Your task to perform on an android device: check data usage Image 0: 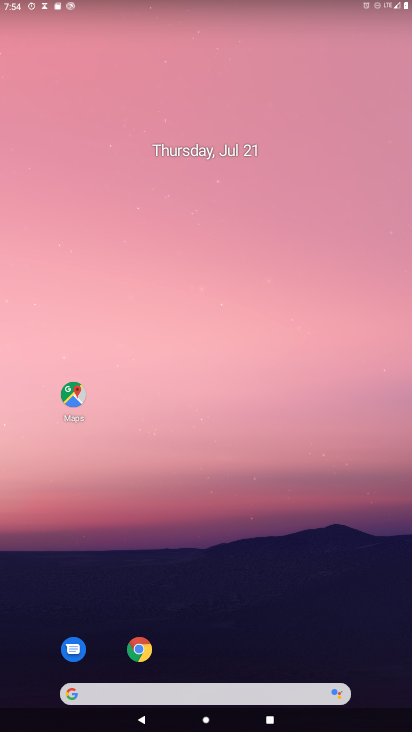
Step 0: drag from (370, 629) to (141, 102)
Your task to perform on an android device: check data usage Image 1: 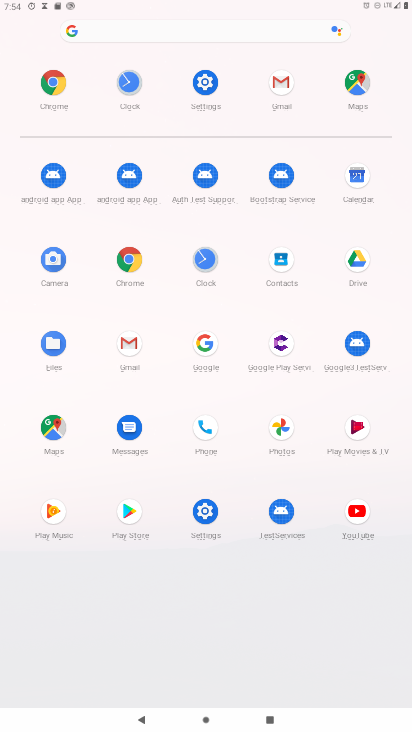
Step 1: click (207, 520)
Your task to perform on an android device: check data usage Image 2: 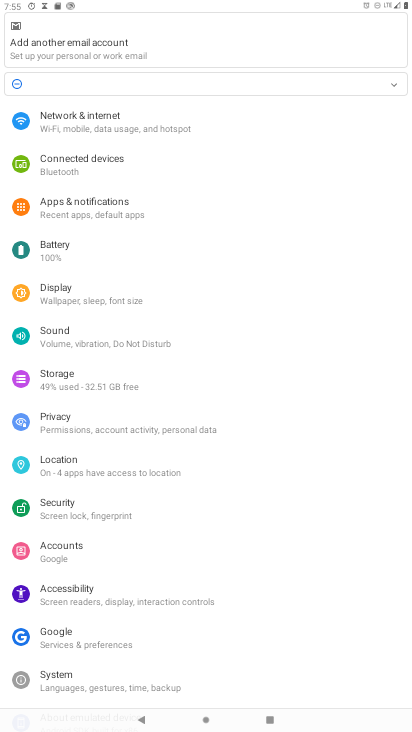
Step 2: click (141, 135)
Your task to perform on an android device: check data usage Image 3: 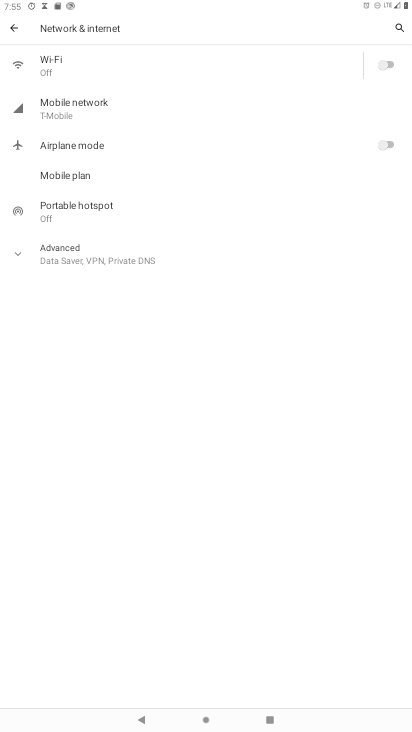
Step 3: click (86, 113)
Your task to perform on an android device: check data usage Image 4: 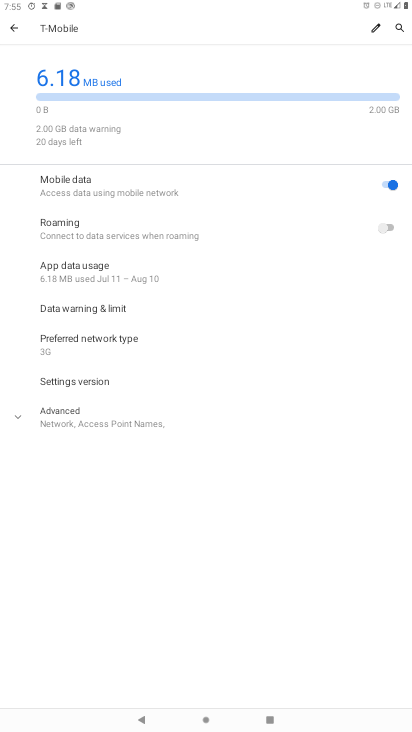
Step 4: click (130, 283)
Your task to perform on an android device: check data usage Image 5: 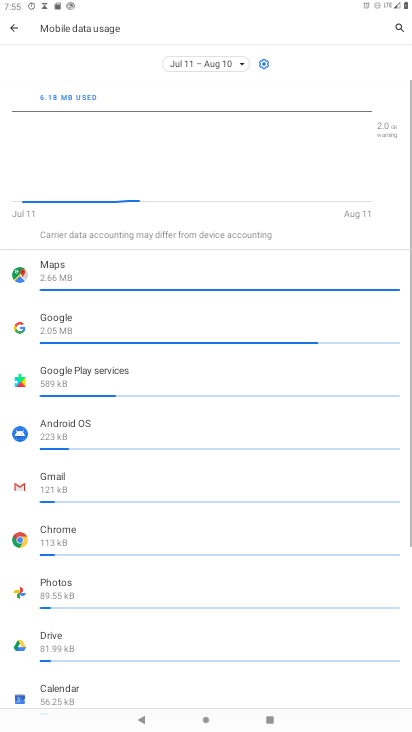
Step 5: task complete